Your task to perform on an android device: See recent photos Image 0: 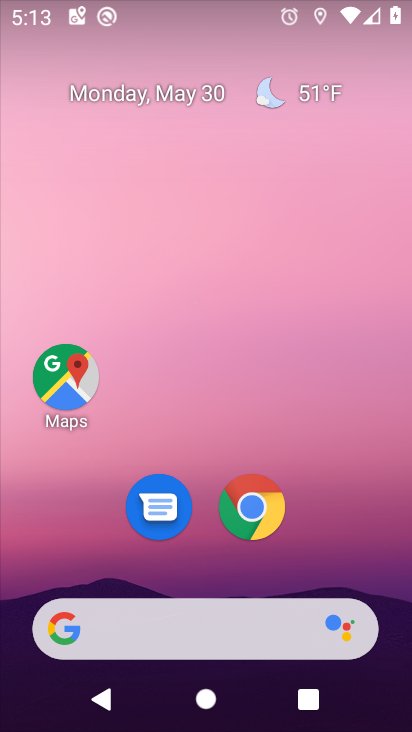
Step 0: drag from (356, 518) to (339, 99)
Your task to perform on an android device: See recent photos Image 1: 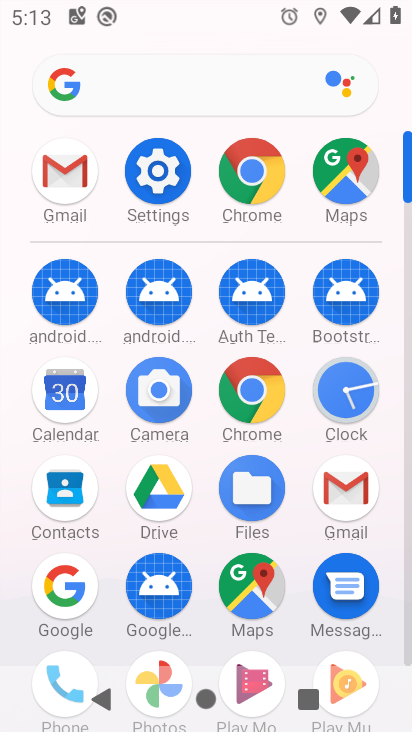
Step 1: click (404, 589)
Your task to perform on an android device: See recent photos Image 2: 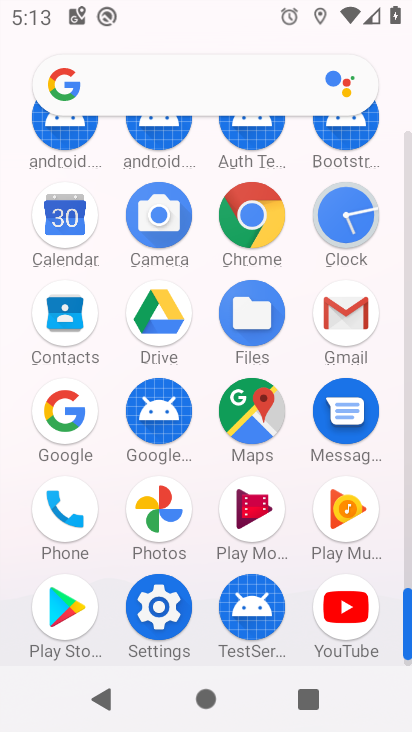
Step 2: click (158, 508)
Your task to perform on an android device: See recent photos Image 3: 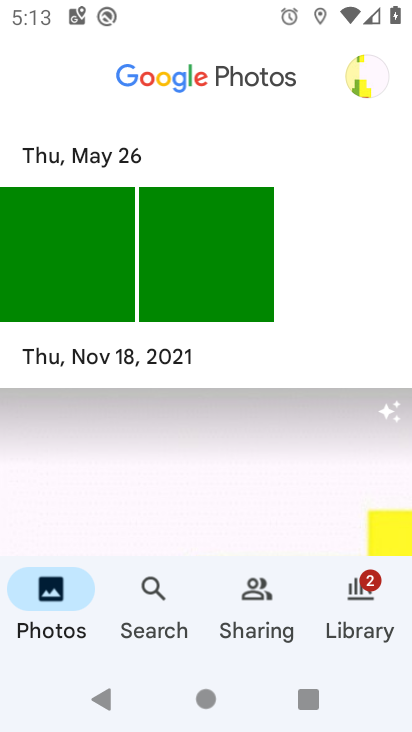
Step 3: task complete